Your task to perform on an android device: Set the phone to "Do not disturb". Image 0: 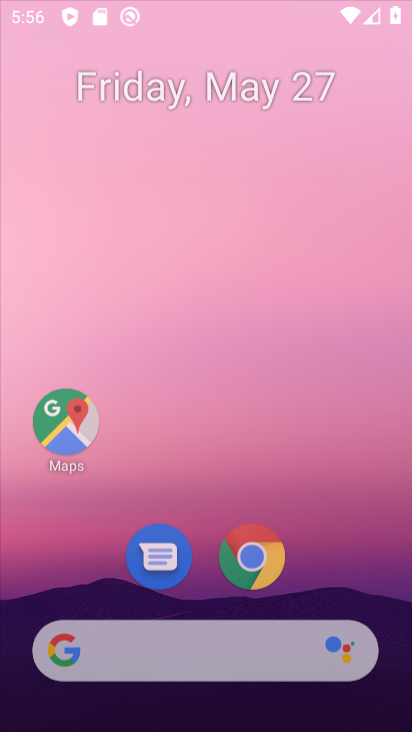
Step 0: press home button
Your task to perform on an android device: Set the phone to "Do not disturb". Image 1: 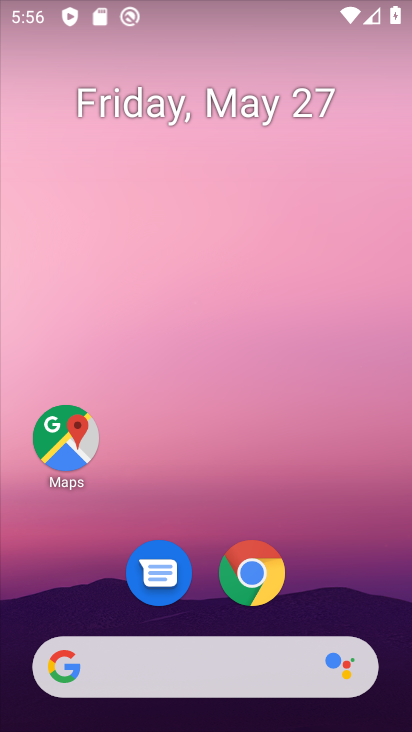
Step 1: drag from (189, 8) to (261, 578)
Your task to perform on an android device: Set the phone to "Do not disturb". Image 2: 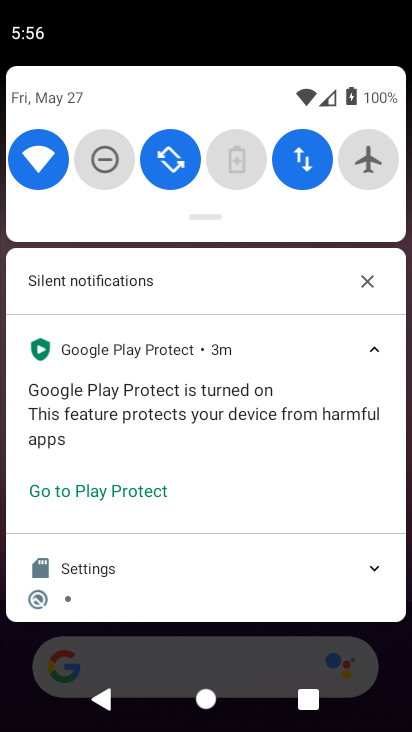
Step 2: click (101, 153)
Your task to perform on an android device: Set the phone to "Do not disturb". Image 3: 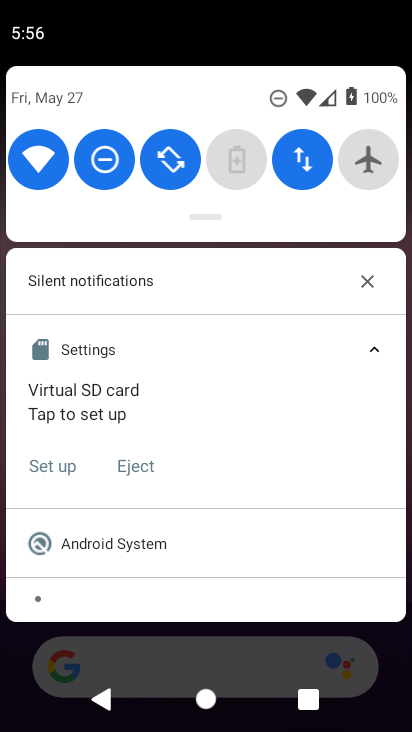
Step 3: task complete